Your task to perform on an android device: toggle location history Image 0: 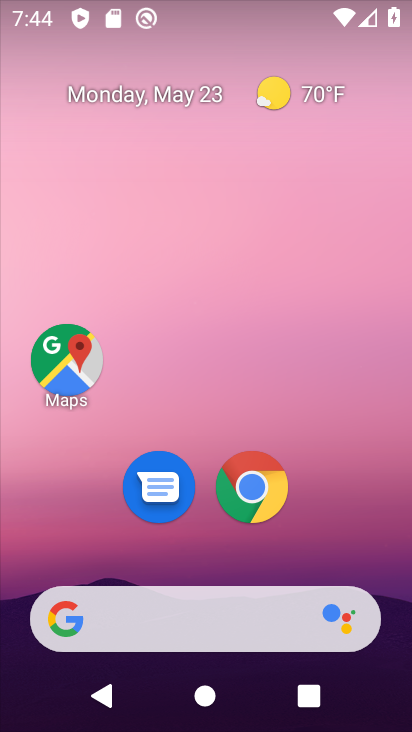
Step 0: drag from (260, 576) to (260, 222)
Your task to perform on an android device: toggle location history Image 1: 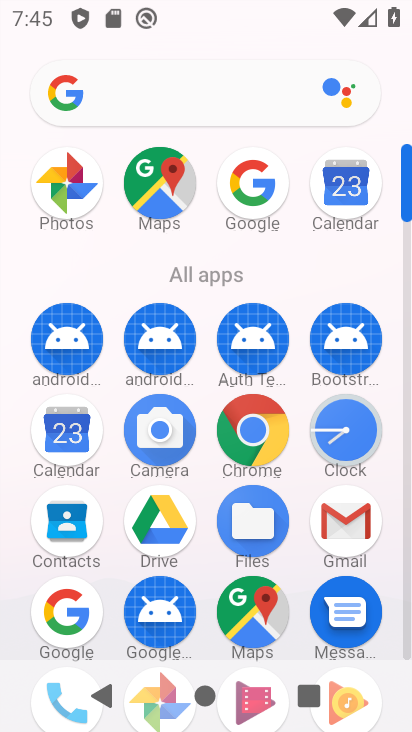
Step 1: drag from (120, 628) to (138, 226)
Your task to perform on an android device: toggle location history Image 2: 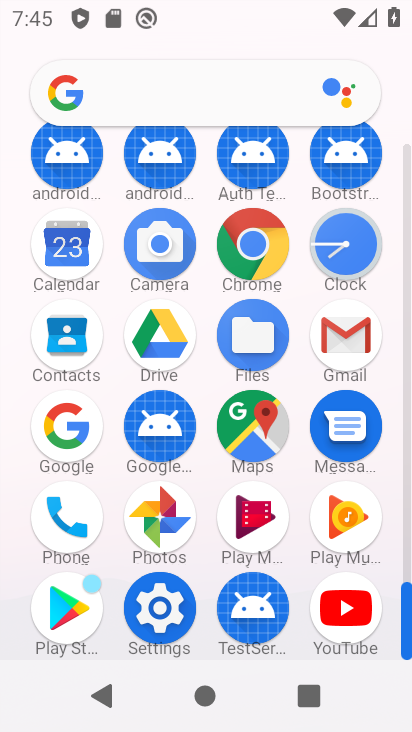
Step 2: click (169, 604)
Your task to perform on an android device: toggle location history Image 3: 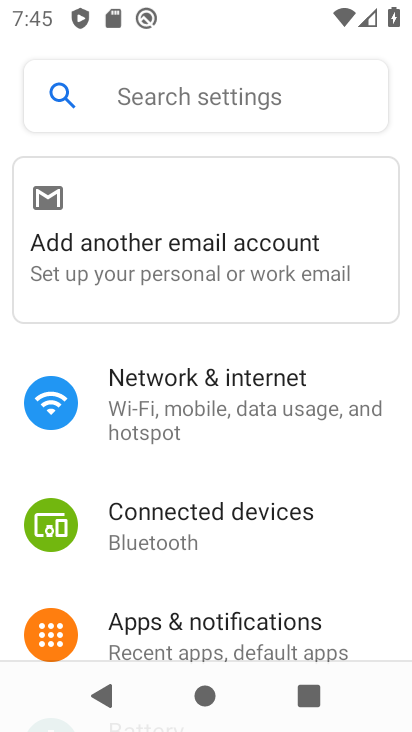
Step 3: drag from (179, 640) to (231, 289)
Your task to perform on an android device: toggle location history Image 4: 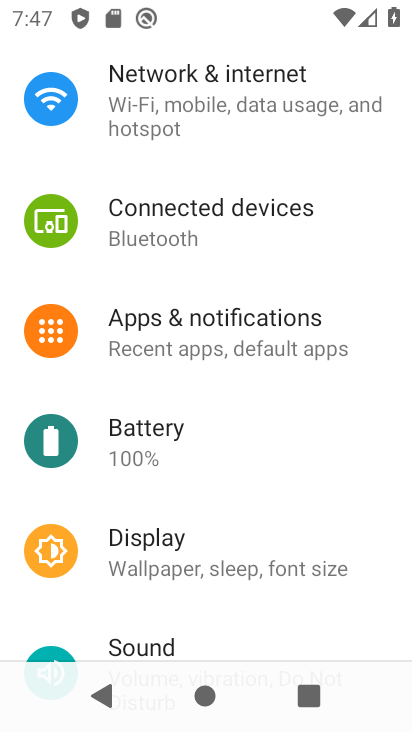
Step 4: drag from (191, 631) to (258, 176)
Your task to perform on an android device: toggle location history Image 5: 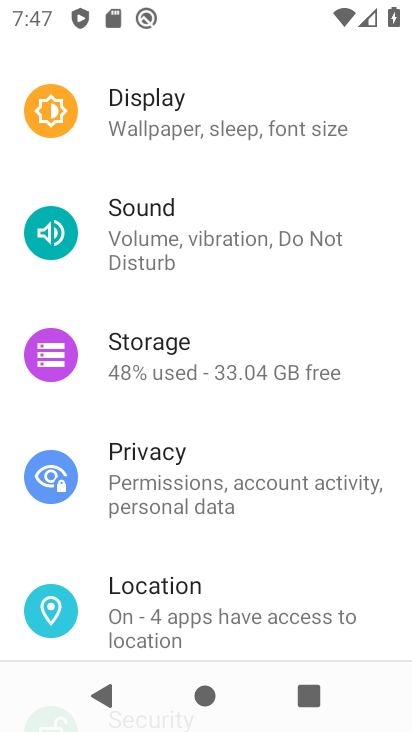
Step 5: click (183, 617)
Your task to perform on an android device: toggle location history Image 6: 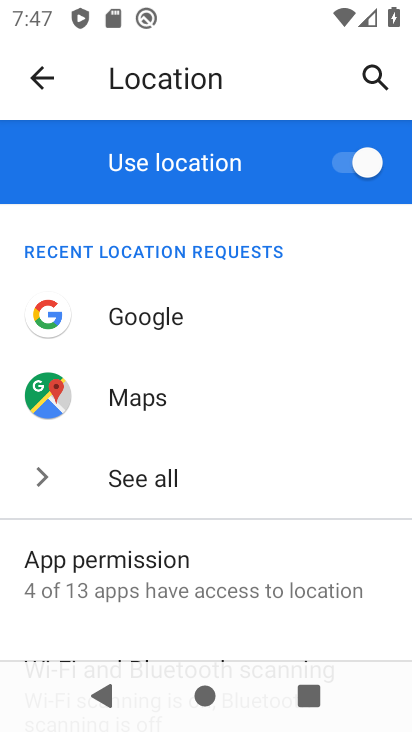
Step 6: drag from (182, 613) to (211, 113)
Your task to perform on an android device: toggle location history Image 7: 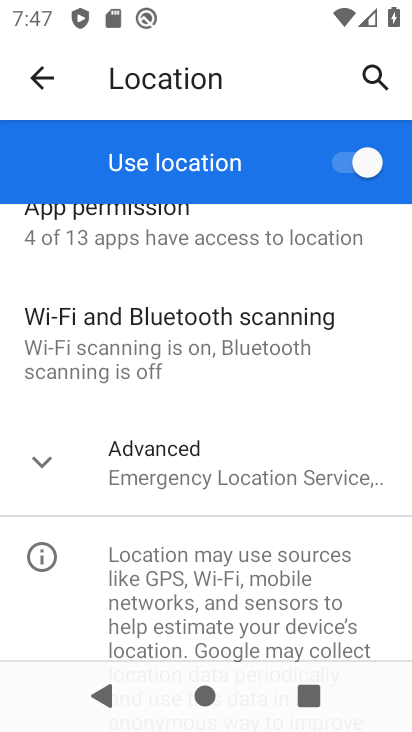
Step 7: click (148, 465)
Your task to perform on an android device: toggle location history Image 8: 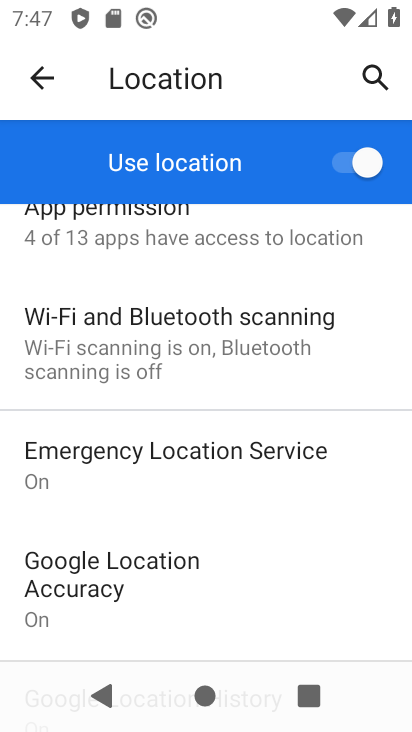
Step 8: drag from (146, 597) to (169, 366)
Your task to perform on an android device: toggle location history Image 9: 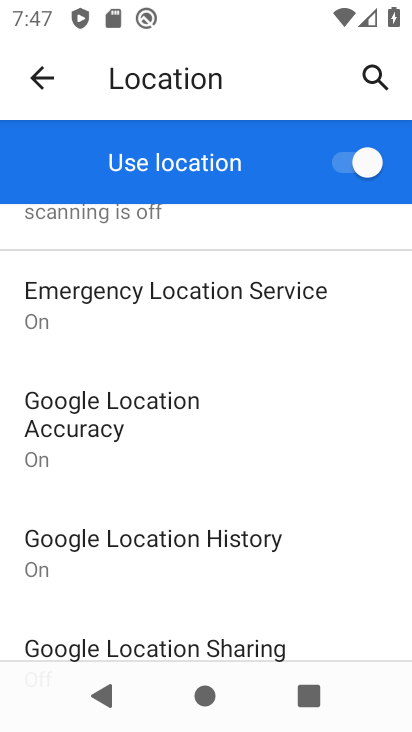
Step 9: click (169, 533)
Your task to perform on an android device: toggle location history Image 10: 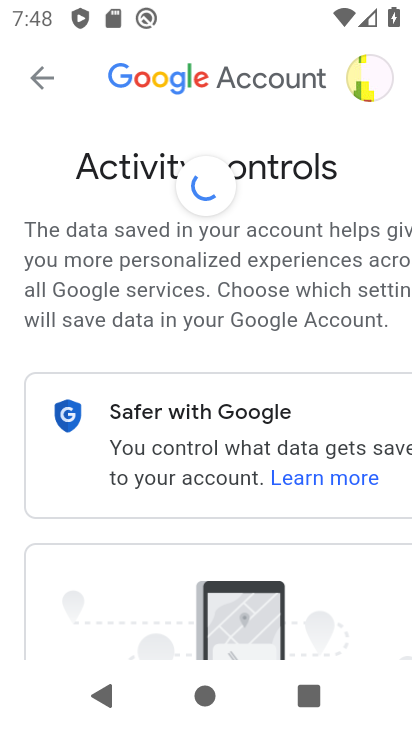
Step 10: drag from (309, 577) to (281, 101)
Your task to perform on an android device: toggle location history Image 11: 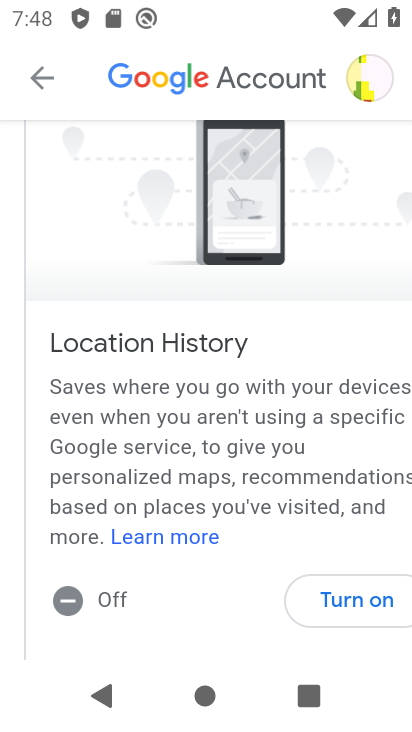
Step 11: click (363, 608)
Your task to perform on an android device: toggle location history Image 12: 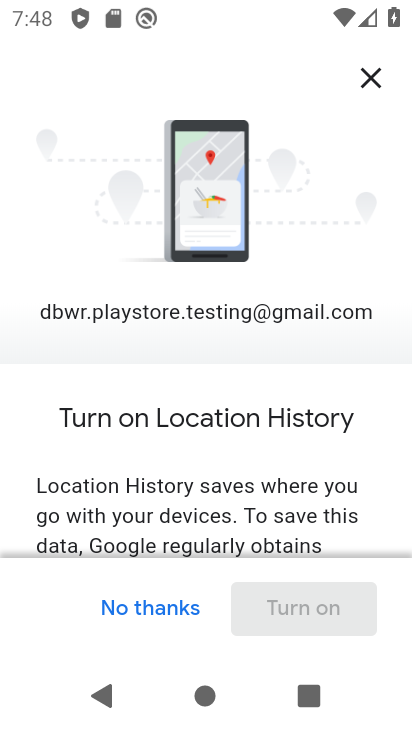
Step 12: drag from (326, 532) to (342, 82)
Your task to perform on an android device: toggle location history Image 13: 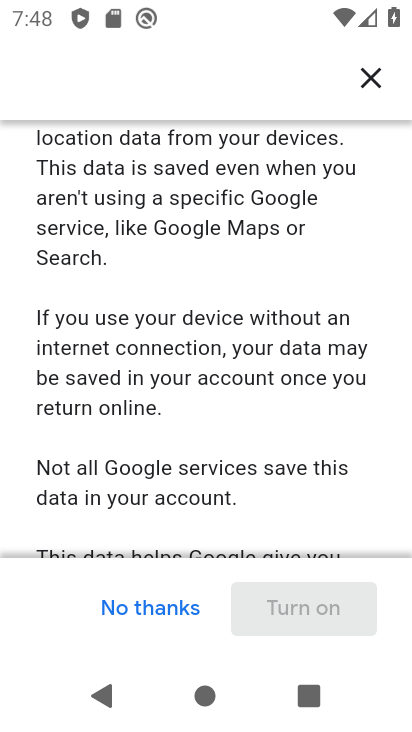
Step 13: drag from (322, 385) to (314, 160)
Your task to perform on an android device: toggle location history Image 14: 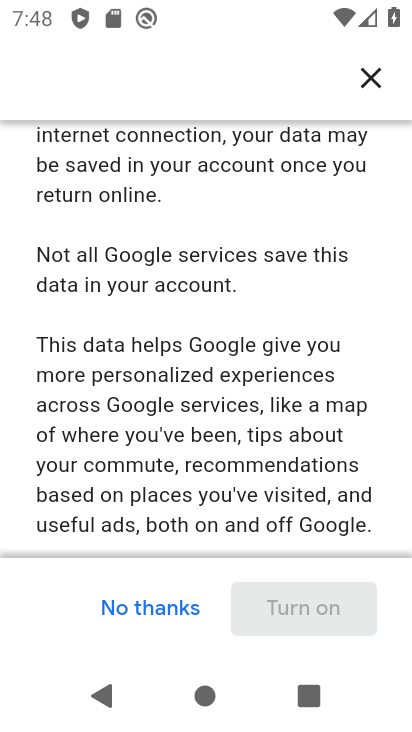
Step 14: drag from (264, 540) to (269, 343)
Your task to perform on an android device: toggle location history Image 15: 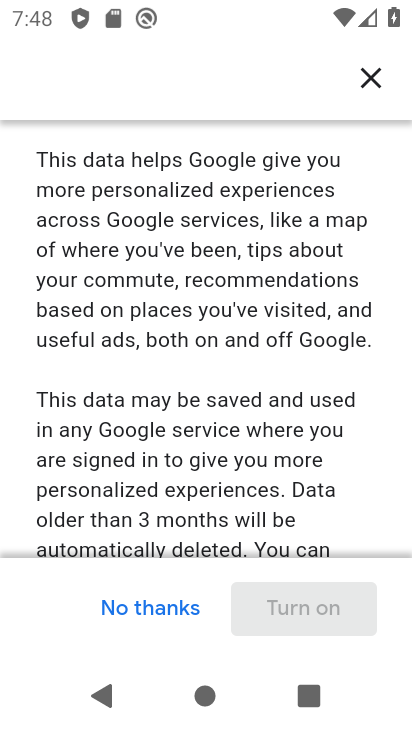
Step 15: drag from (274, 542) to (285, 232)
Your task to perform on an android device: toggle location history Image 16: 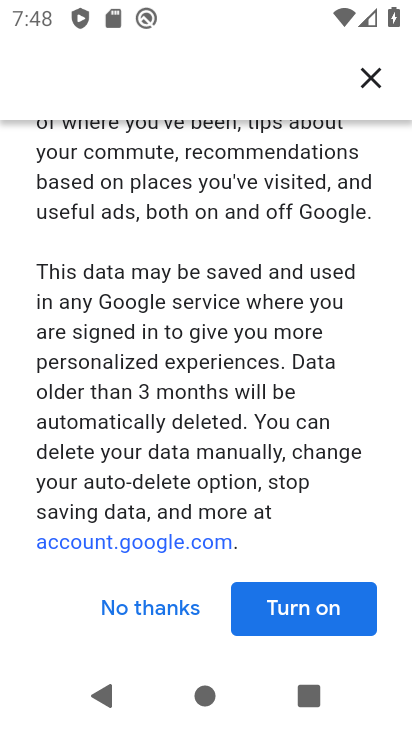
Step 16: click (314, 605)
Your task to perform on an android device: toggle location history Image 17: 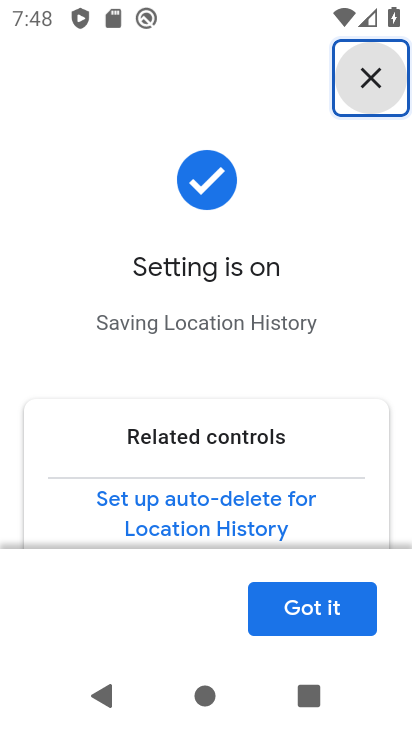
Step 17: click (314, 605)
Your task to perform on an android device: toggle location history Image 18: 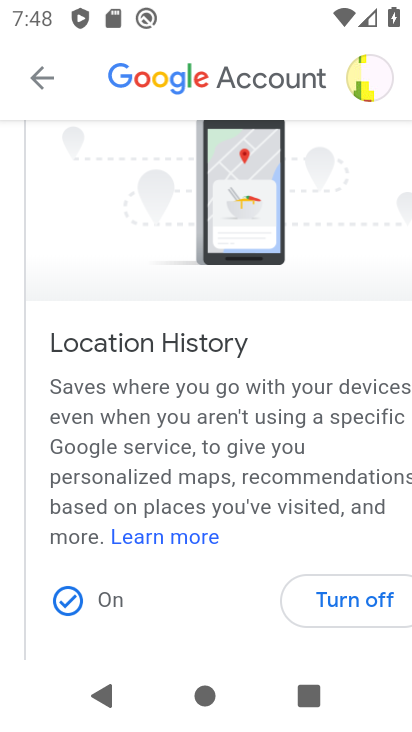
Step 18: task complete